Your task to perform on an android device: Install the Starbucks app Image 0: 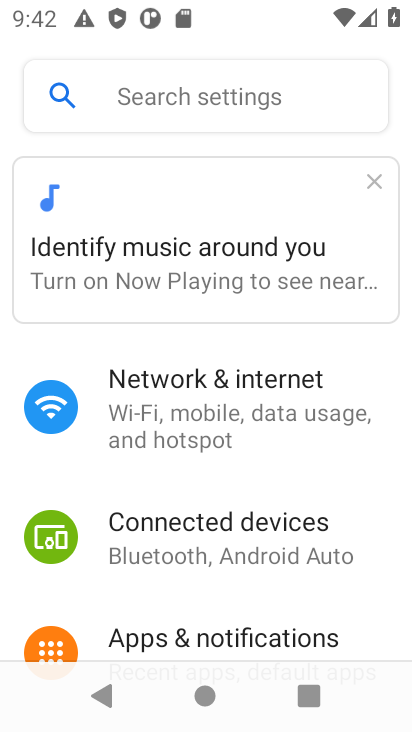
Step 0: press home button
Your task to perform on an android device: Install the Starbucks app Image 1: 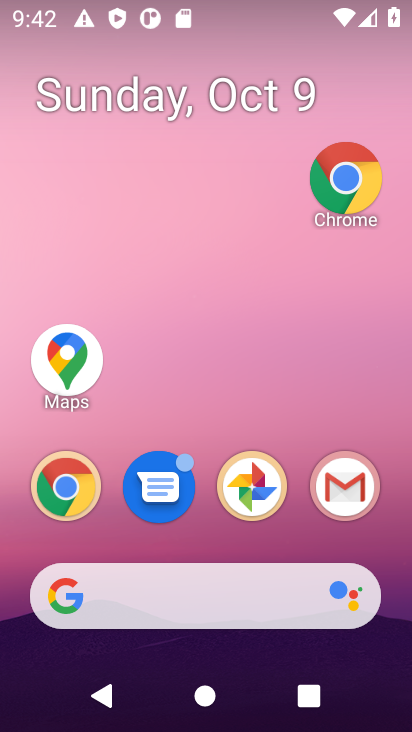
Step 1: drag from (263, 656) to (294, 177)
Your task to perform on an android device: Install the Starbucks app Image 2: 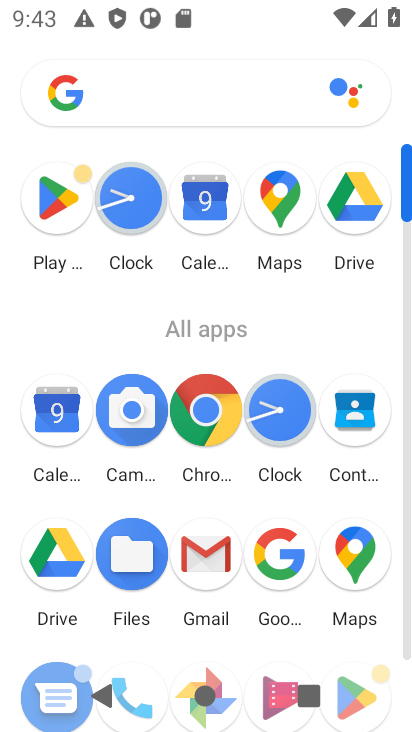
Step 2: drag from (254, 566) to (288, 192)
Your task to perform on an android device: Install the Starbucks app Image 3: 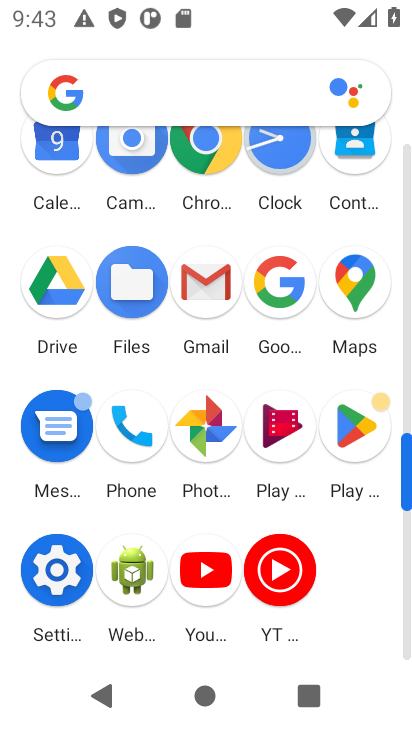
Step 3: click (362, 437)
Your task to perform on an android device: Install the Starbucks app Image 4: 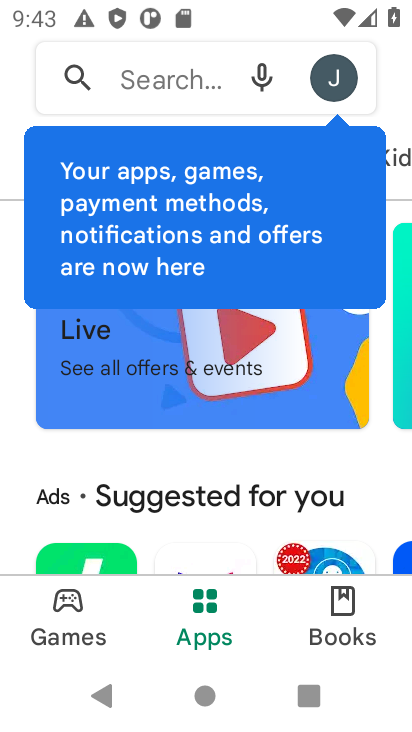
Step 4: click (153, 59)
Your task to perform on an android device: Install the Starbucks app Image 5: 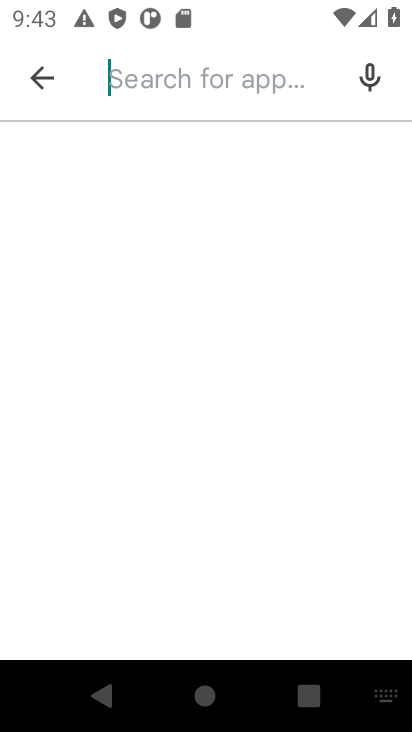
Step 5: type "Starbucks"
Your task to perform on an android device: Install the Starbucks app Image 6: 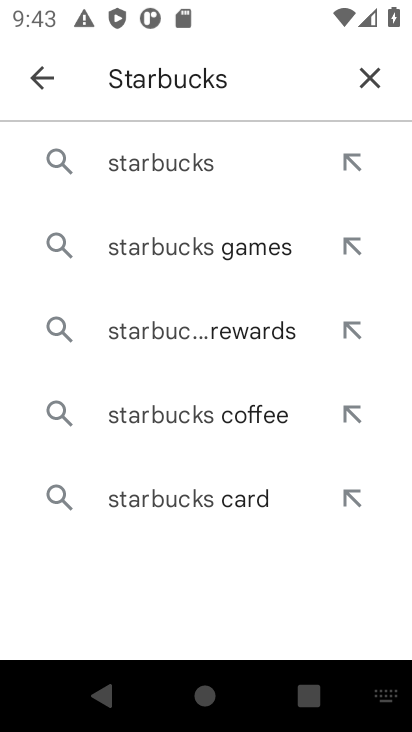
Step 6: type " aap"
Your task to perform on an android device: Install the Starbucks app Image 7: 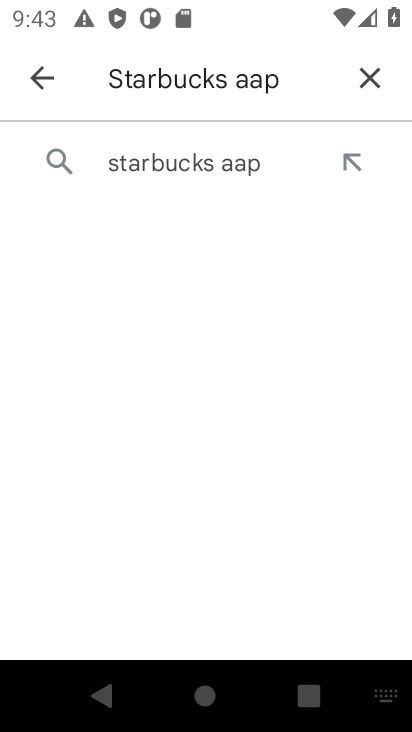
Step 7: click (235, 154)
Your task to perform on an android device: Install the Starbucks app Image 8: 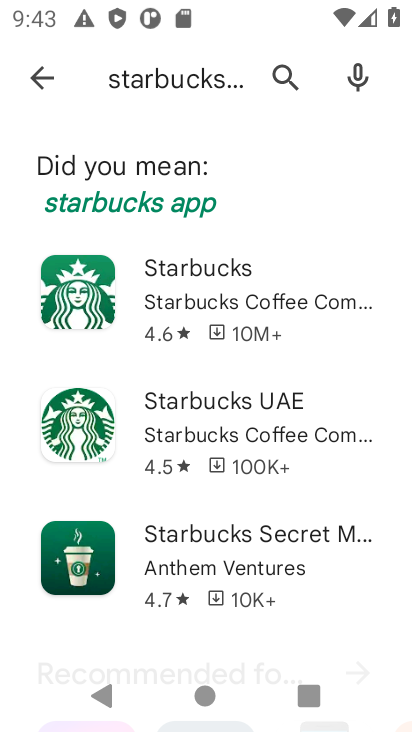
Step 8: click (213, 282)
Your task to perform on an android device: Install the Starbucks app Image 9: 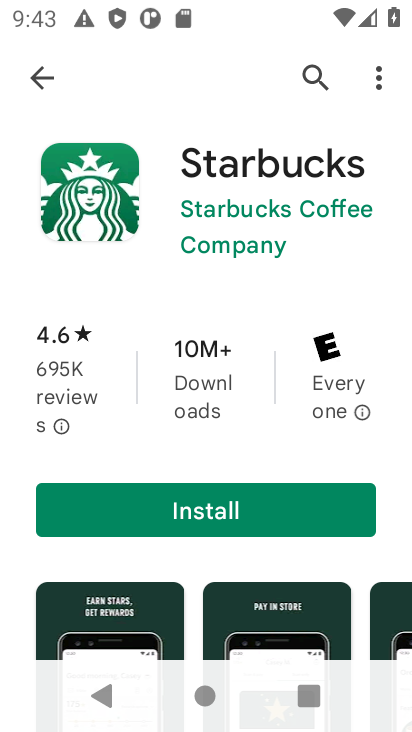
Step 9: click (239, 493)
Your task to perform on an android device: Install the Starbucks app Image 10: 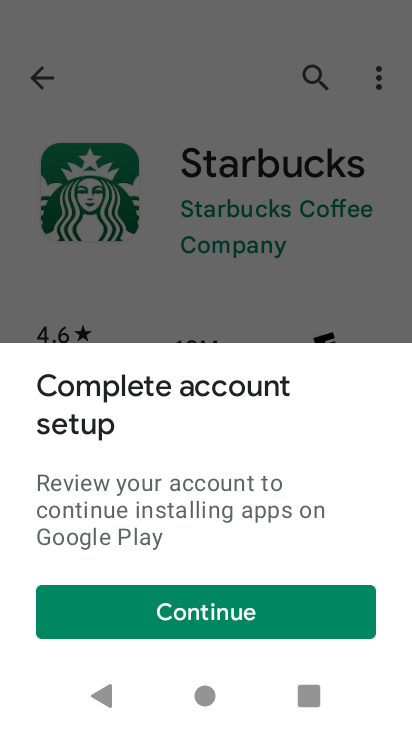
Step 10: click (228, 600)
Your task to perform on an android device: Install the Starbucks app Image 11: 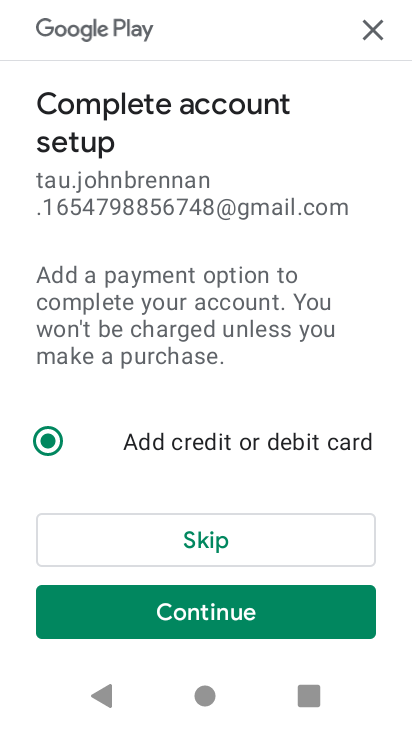
Step 11: click (225, 538)
Your task to perform on an android device: Install the Starbucks app Image 12: 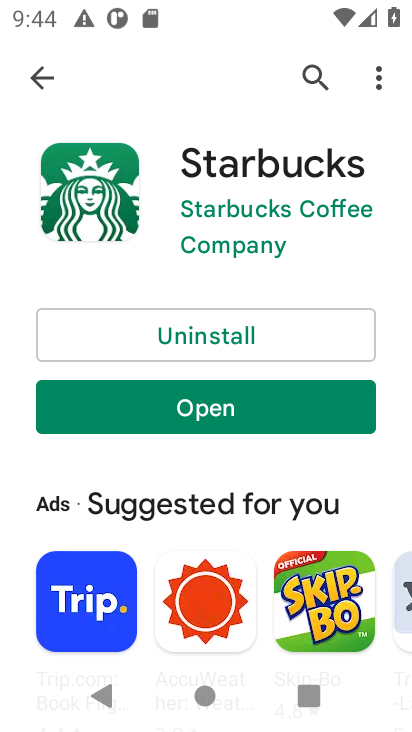
Step 12: task complete